Your task to perform on an android device: Clear the cart on bestbuy.com. Search for jbl charge 4 on bestbuy.com, select the first entry, add it to the cart, then select checkout. Image 0: 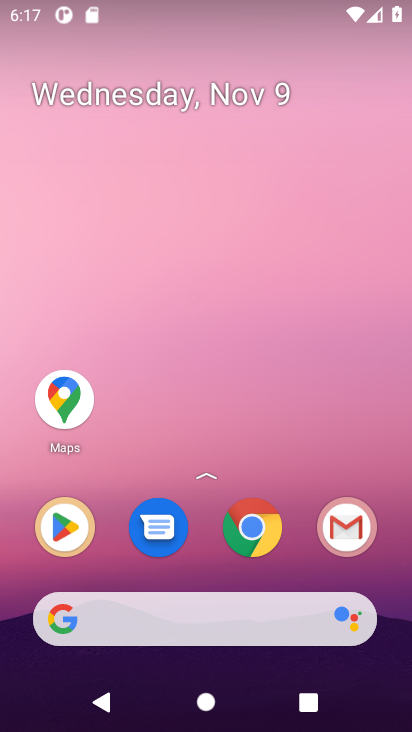
Step 0: press home button
Your task to perform on an android device: Clear the cart on bestbuy.com. Search for jbl charge 4 on bestbuy.com, select the first entry, add it to the cart, then select checkout. Image 1: 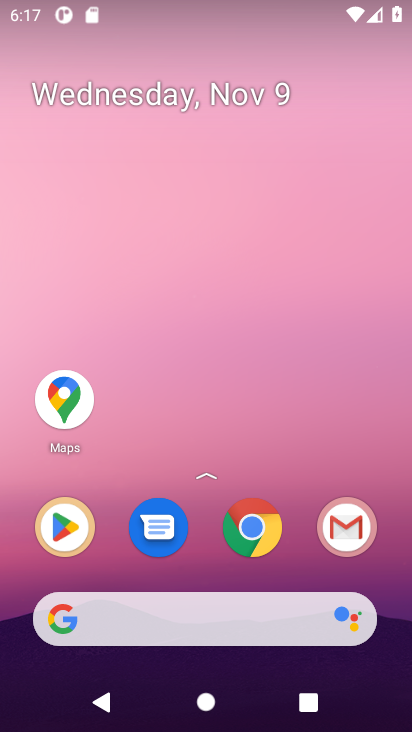
Step 1: click (206, 3)
Your task to perform on an android device: Clear the cart on bestbuy.com. Search for jbl charge 4 on bestbuy.com, select the first entry, add it to the cart, then select checkout. Image 2: 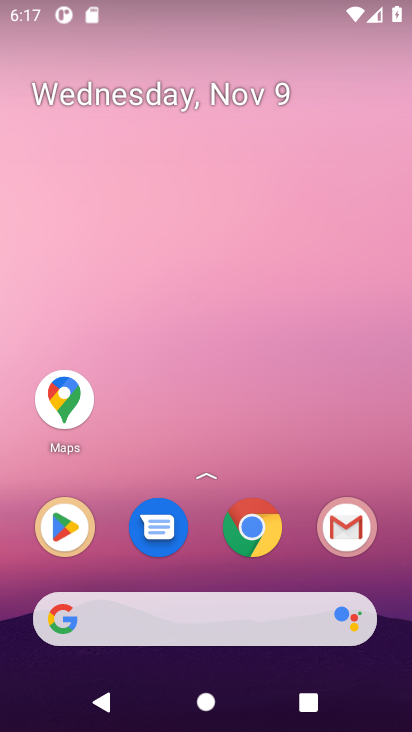
Step 2: drag from (211, 487) to (203, 12)
Your task to perform on an android device: Clear the cart on bestbuy.com. Search for jbl charge 4 on bestbuy.com, select the first entry, add it to the cart, then select checkout. Image 3: 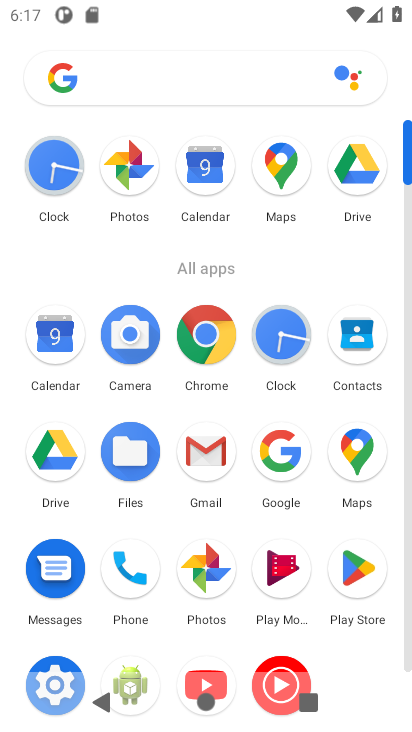
Step 3: click (202, 329)
Your task to perform on an android device: Clear the cart on bestbuy.com. Search for jbl charge 4 on bestbuy.com, select the first entry, add it to the cart, then select checkout. Image 4: 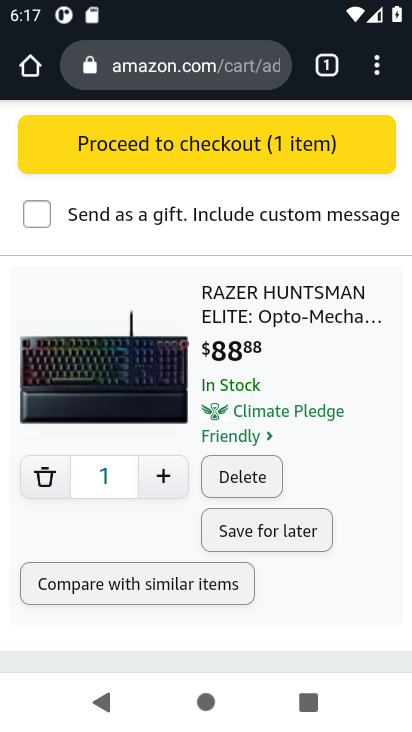
Step 4: click (143, 65)
Your task to perform on an android device: Clear the cart on bestbuy.com. Search for jbl charge 4 on bestbuy.com, select the first entry, add it to the cart, then select checkout. Image 5: 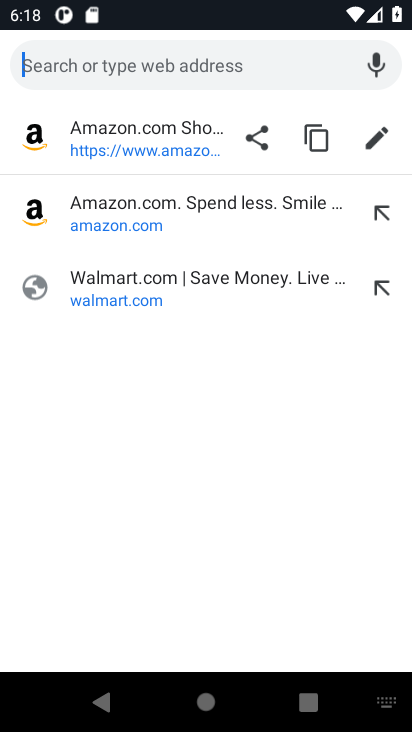
Step 5: type "bestbuy"
Your task to perform on an android device: Clear the cart on bestbuy.com. Search for jbl charge 4 on bestbuy.com, select the first entry, add it to the cart, then select checkout. Image 6: 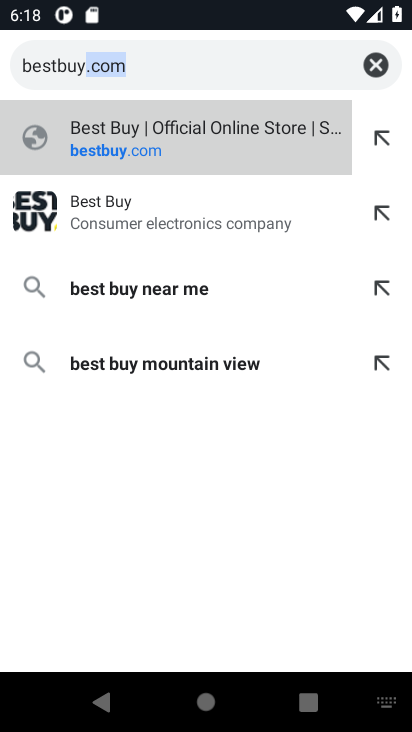
Step 6: click (214, 115)
Your task to perform on an android device: Clear the cart on bestbuy.com. Search for jbl charge 4 on bestbuy.com, select the first entry, add it to the cart, then select checkout. Image 7: 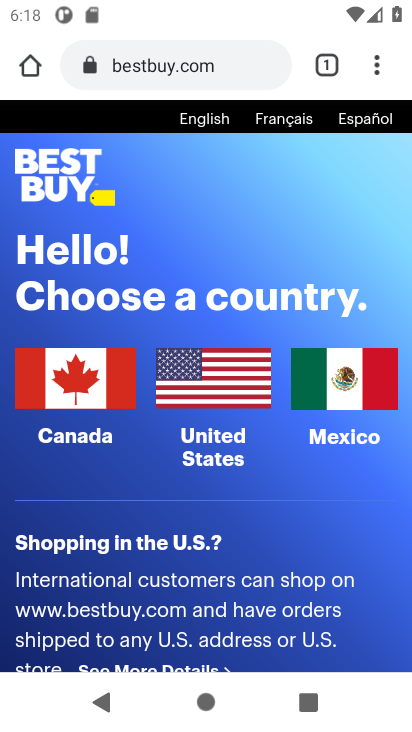
Step 7: click (222, 387)
Your task to perform on an android device: Clear the cart on bestbuy.com. Search for jbl charge 4 on bestbuy.com, select the first entry, add it to the cart, then select checkout. Image 8: 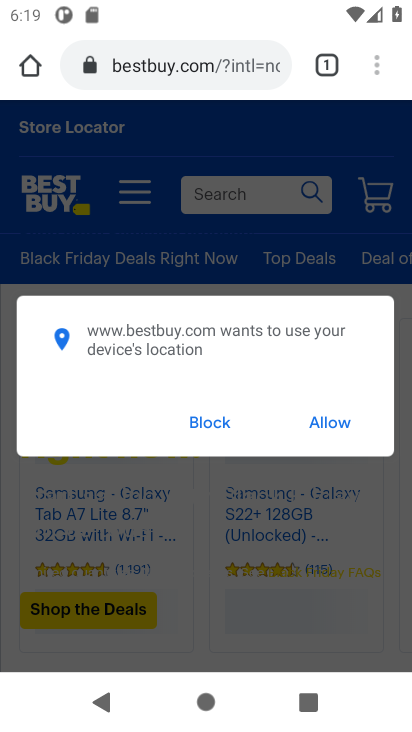
Step 8: click (329, 423)
Your task to perform on an android device: Clear the cart on bestbuy.com. Search for jbl charge 4 on bestbuy.com, select the first entry, add it to the cart, then select checkout. Image 9: 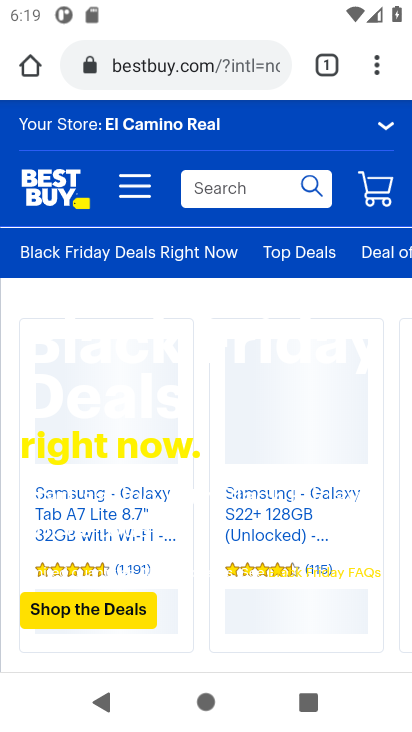
Step 9: click (227, 183)
Your task to perform on an android device: Clear the cart on bestbuy.com. Search for jbl charge 4 on bestbuy.com, select the first entry, add it to the cart, then select checkout. Image 10: 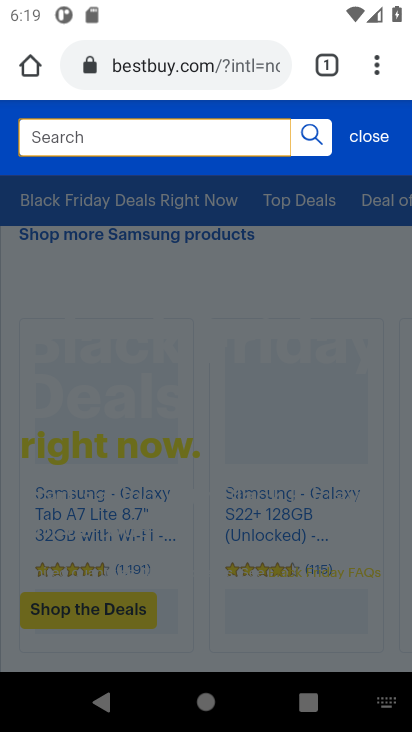
Step 10: type "jbl charge 4"
Your task to perform on an android device: Clear the cart on bestbuy.com. Search for jbl charge 4 on bestbuy.com, select the first entry, add it to the cart, then select checkout. Image 11: 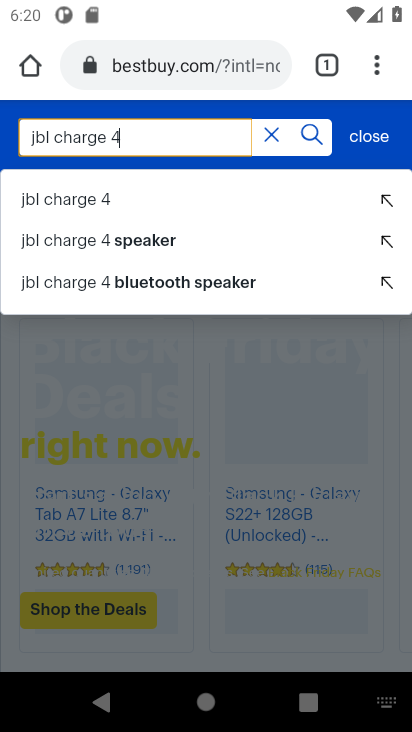
Step 11: click (119, 191)
Your task to perform on an android device: Clear the cart on bestbuy.com. Search for jbl charge 4 on bestbuy.com, select the first entry, add it to the cart, then select checkout. Image 12: 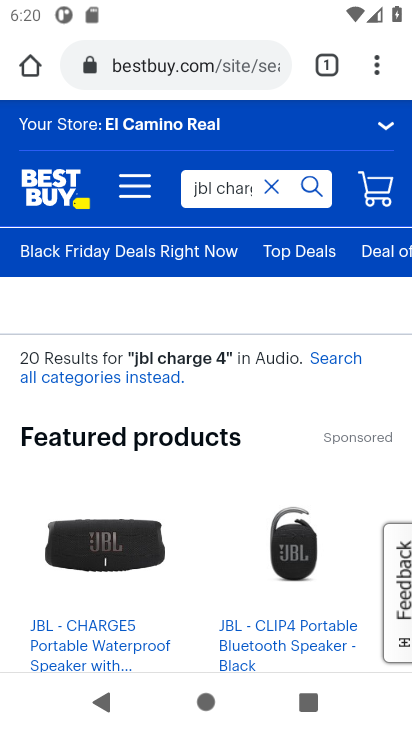
Step 12: drag from (212, 492) to (150, 207)
Your task to perform on an android device: Clear the cart on bestbuy.com. Search for jbl charge 4 on bestbuy.com, select the first entry, add it to the cart, then select checkout. Image 13: 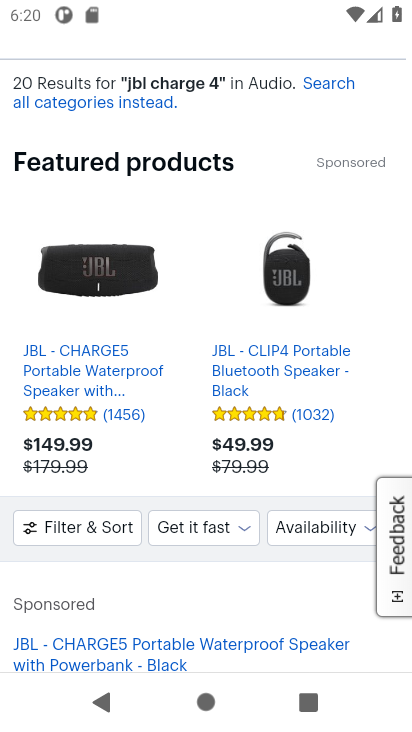
Step 13: drag from (222, 599) to (203, 308)
Your task to perform on an android device: Clear the cart on bestbuy.com. Search for jbl charge 4 on bestbuy.com, select the first entry, add it to the cart, then select checkout. Image 14: 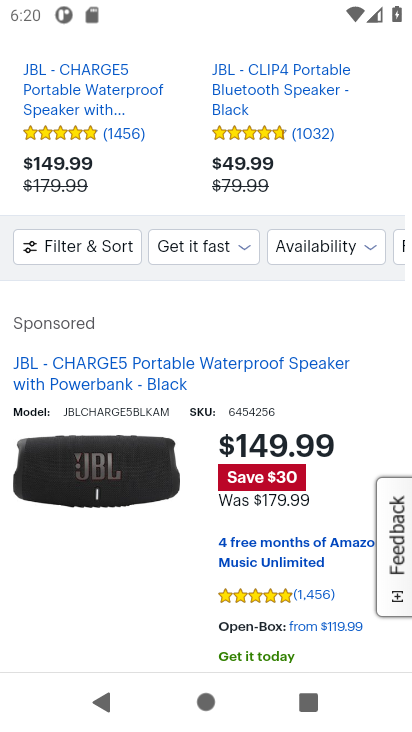
Step 14: click (142, 362)
Your task to perform on an android device: Clear the cart on bestbuy.com. Search for jbl charge 4 on bestbuy.com, select the first entry, add it to the cart, then select checkout. Image 15: 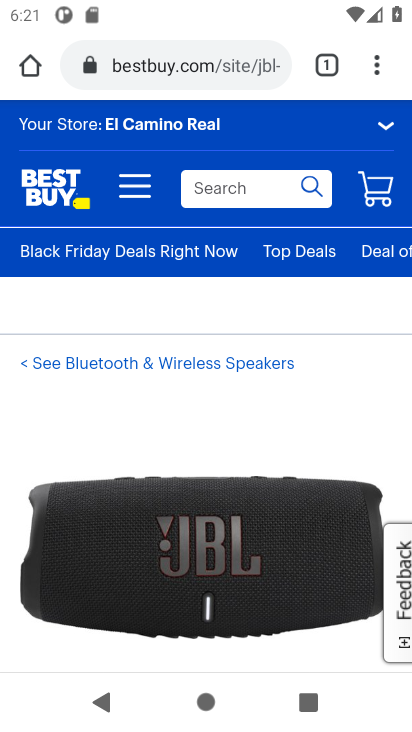
Step 15: drag from (71, 657) to (53, 278)
Your task to perform on an android device: Clear the cart on bestbuy.com. Search for jbl charge 4 on bestbuy.com, select the first entry, add it to the cart, then select checkout. Image 16: 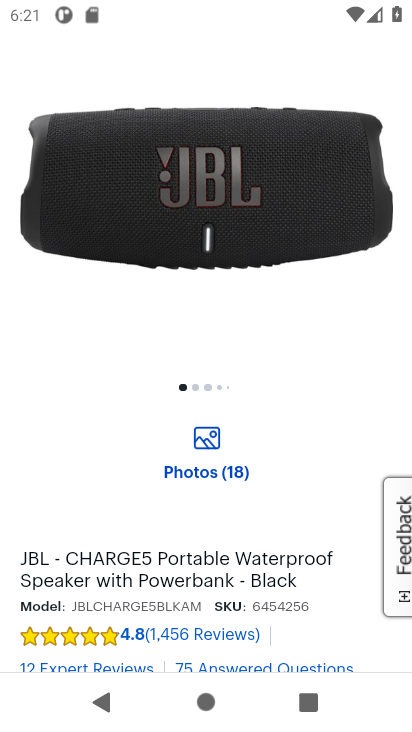
Step 16: drag from (149, 613) to (123, 160)
Your task to perform on an android device: Clear the cart on bestbuy.com. Search for jbl charge 4 on bestbuy.com, select the first entry, add it to the cart, then select checkout. Image 17: 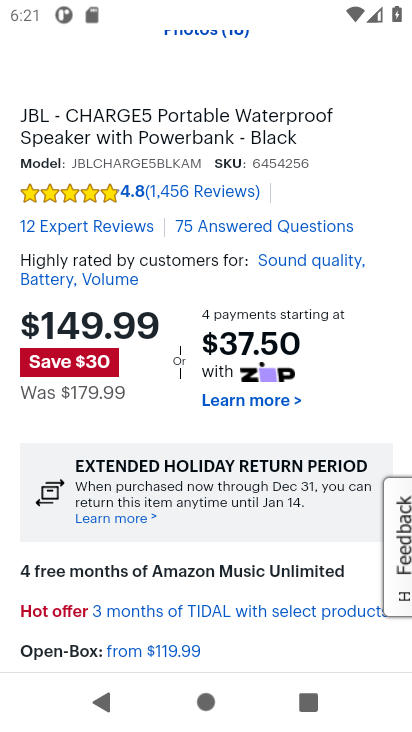
Step 17: drag from (220, 571) to (199, 223)
Your task to perform on an android device: Clear the cart on bestbuy.com. Search for jbl charge 4 on bestbuy.com, select the first entry, add it to the cart, then select checkout. Image 18: 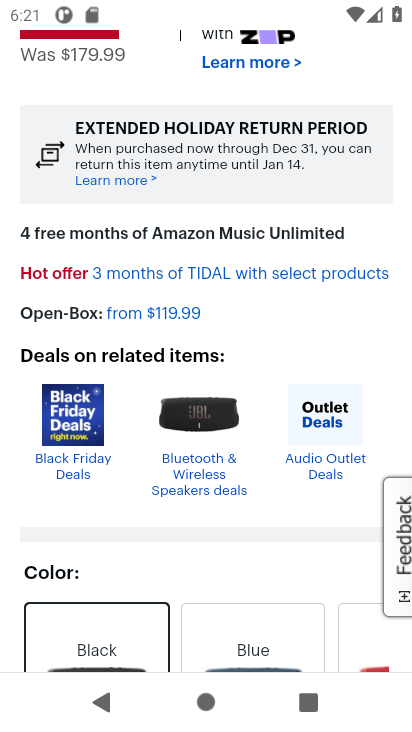
Step 18: drag from (249, 577) to (206, 119)
Your task to perform on an android device: Clear the cart on bestbuy.com. Search for jbl charge 4 on bestbuy.com, select the first entry, add it to the cart, then select checkout. Image 19: 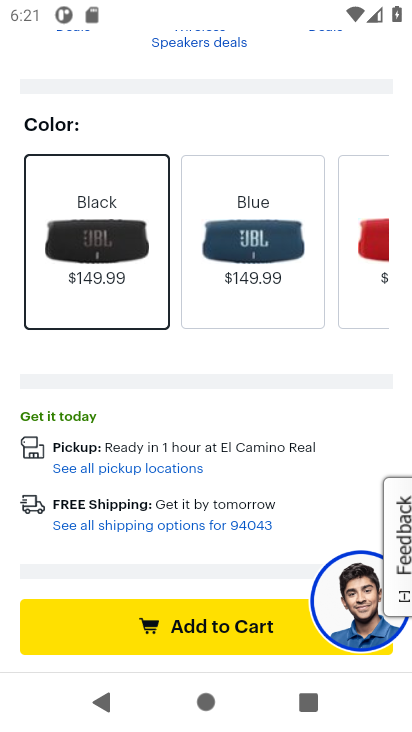
Step 19: click (211, 623)
Your task to perform on an android device: Clear the cart on bestbuy.com. Search for jbl charge 4 on bestbuy.com, select the first entry, add it to the cart, then select checkout. Image 20: 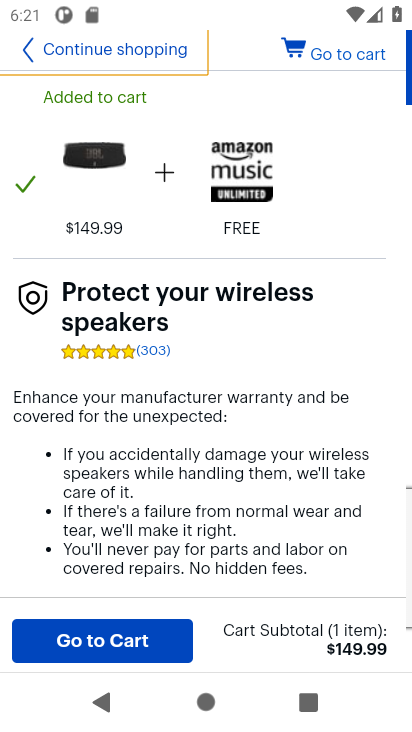
Step 20: click (125, 649)
Your task to perform on an android device: Clear the cart on bestbuy.com. Search for jbl charge 4 on bestbuy.com, select the first entry, add it to the cart, then select checkout. Image 21: 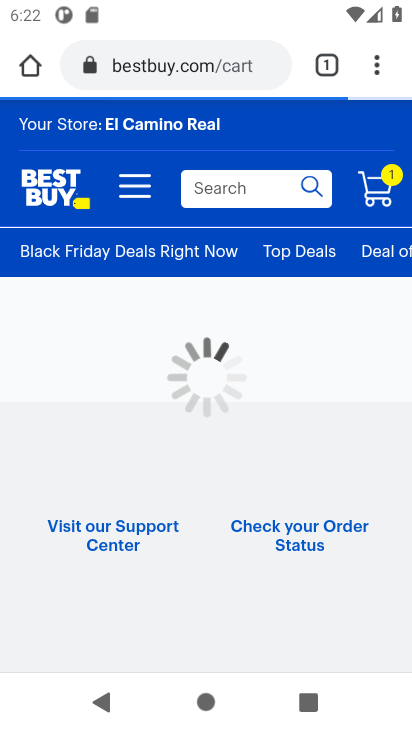
Step 21: click (375, 177)
Your task to perform on an android device: Clear the cart on bestbuy.com. Search for jbl charge 4 on bestbuy.com, select the first entry, add it to the cart, then select checkout. Image 22: 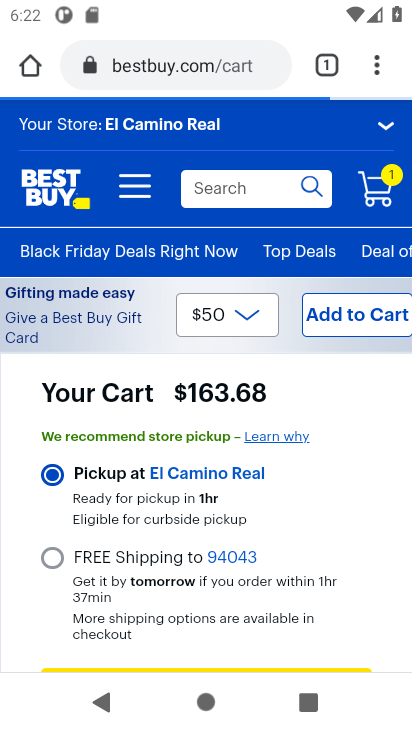
Step 22: drag from (249, 572) to (235, 248)
Your task to perform on an android device: Clear the cart on bestbuy.com. Search for jbl charge 4 on bestbuy.com, select the first entry, add it to the cart, then select checkout. Image 23: 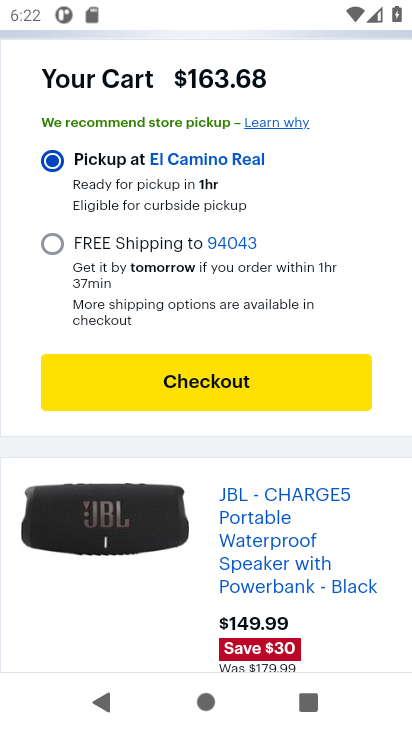
Step 23: click (206, 370)
Your task to perform on an android device: Clear the cart on bestbuy.com. Search for jbl charge 4 on bestbuy.com, select the first entry, add it to the cart, then select checkout. Image 24: 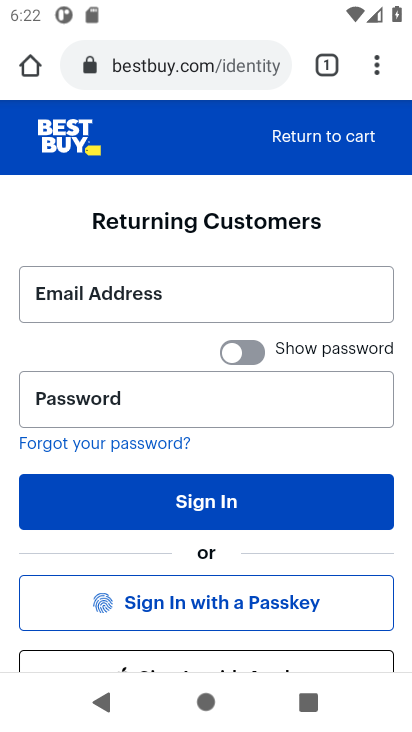
Step 24: task complete